Your task to perform on an android device: What is the recent news? Image 0: 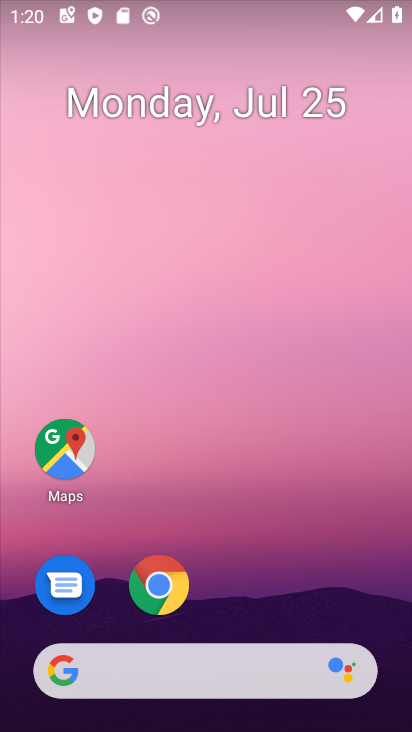
Step 0: click (226, 670)
Your task to perform on an android device: What is the recent news? Image 1: 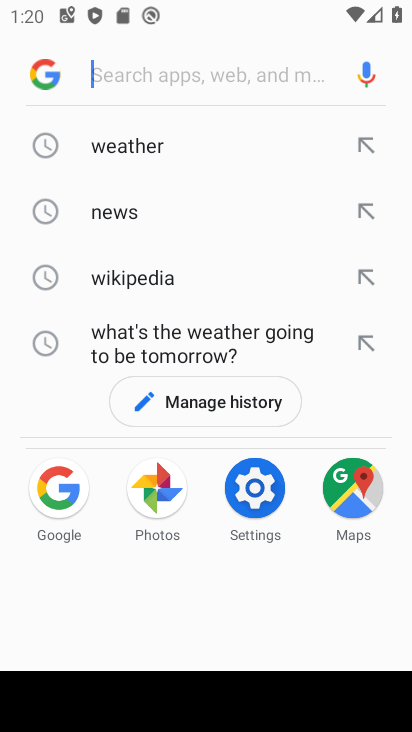
Step 1: click (123, 209)
Your task to perform on an android device: What is the recent news? Image 2: 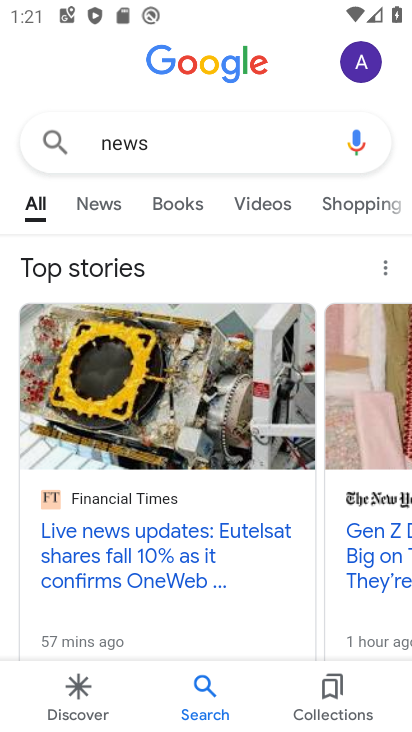
Step 2: task complete